Your task to perform on an android device: delete location history Image 0: 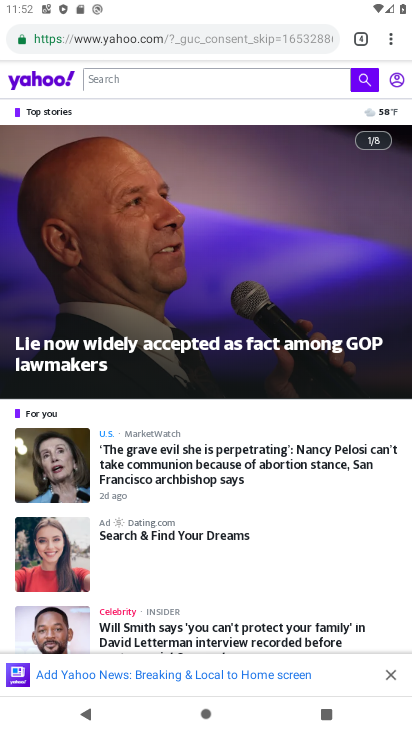
Step 0: press home button
Your task to perform on an android device: delete location history Image 1: 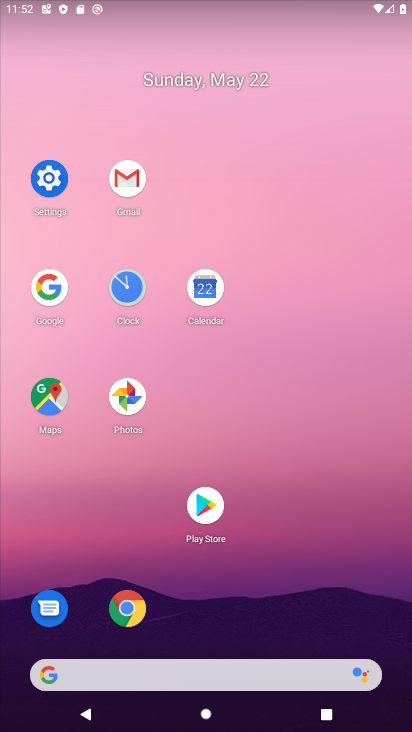
Step 1: click (51, 161)
Your task to perform on an android device: delete location history Image 2: 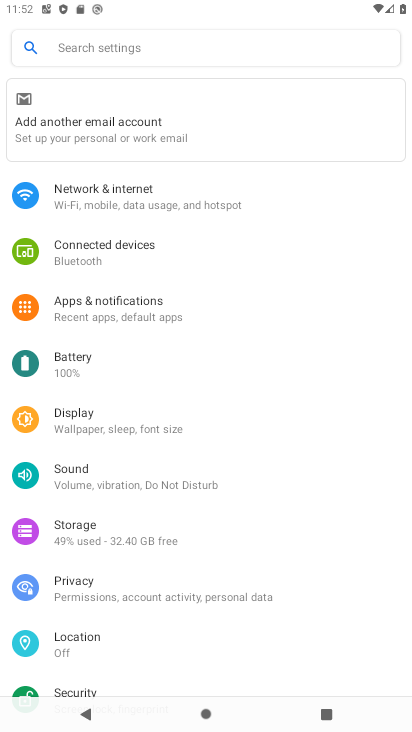
Step 2: click (192, 649)
Your task to perform on an android device: delete location history Image 3: 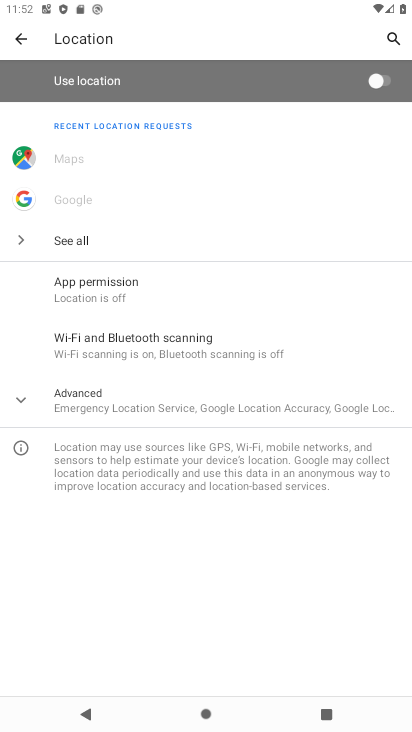
Step 3: click (129, 390)
Your task to perform on an android device: delete location history Image 4: 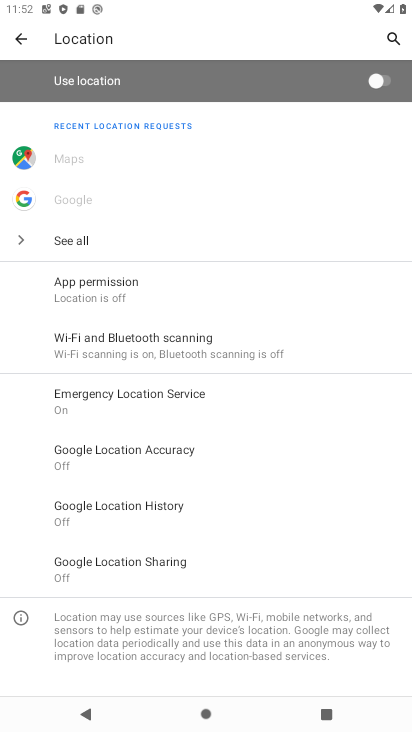
Step 4: click (188, 500)
Your task to perform on an android device: delete location history Image 5: 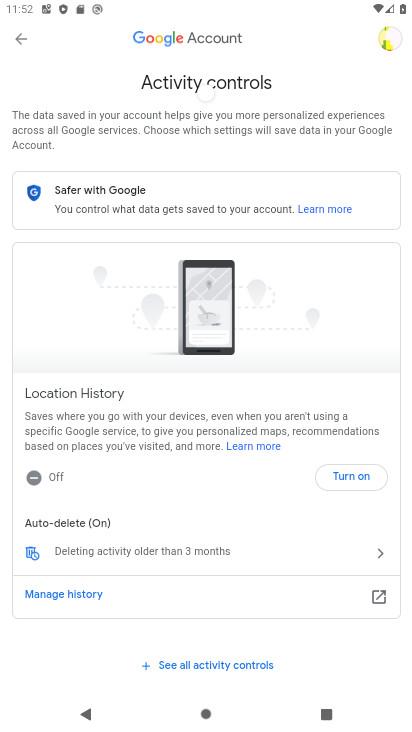
Step 5: drag from (188, 500) to (180, 171)
Your task to perform on an android device: delete location history Image 6: 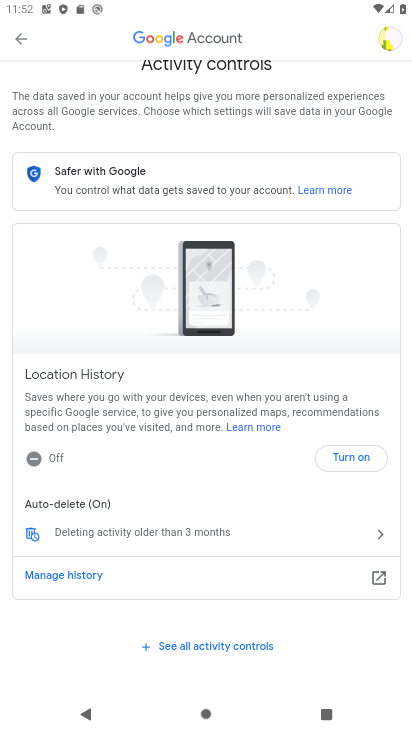
Step 6: click (153, 534)
Your task to perform on an android device: delete location history Image 7: 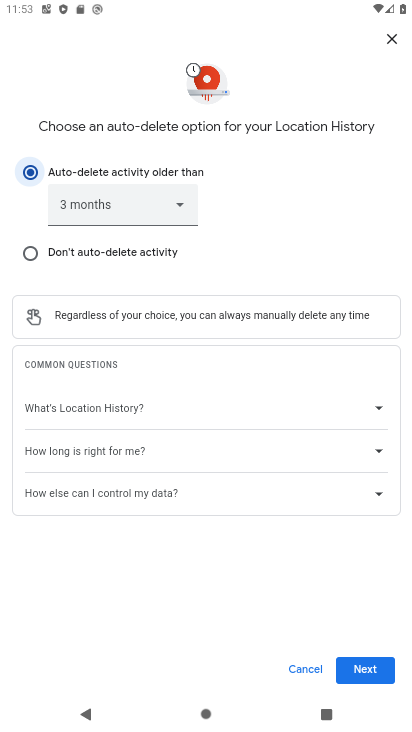
Step 7: click (381, 663)
Your task to perform on an android device: delete location history Image 8: 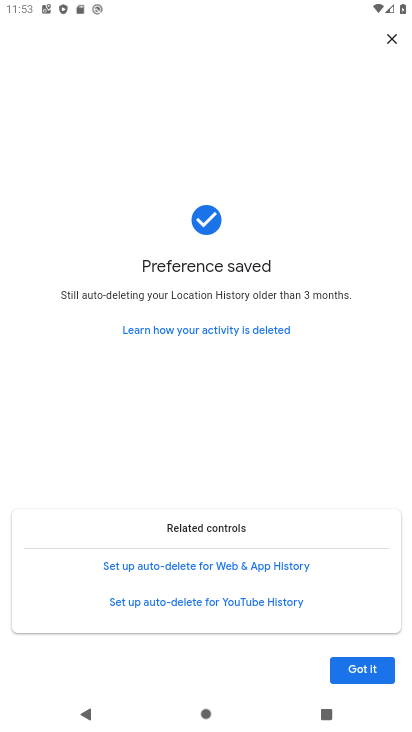
Step 8: click (384, 666)
Your task to perform on an android device: delete location history Image 9: 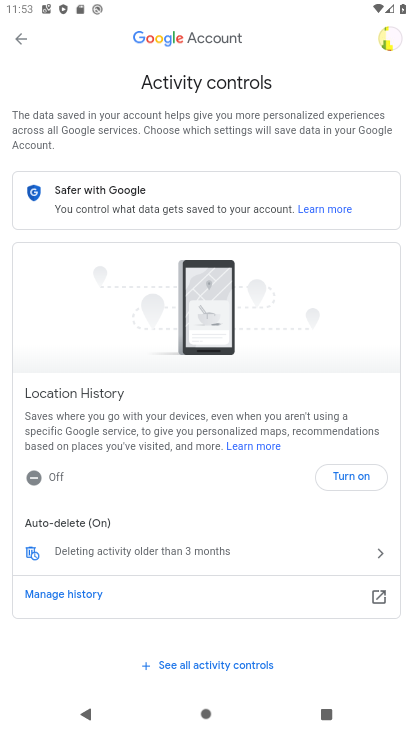
Step 9: task complete